Your task to perform on an android device: Open Android settings Image 0: 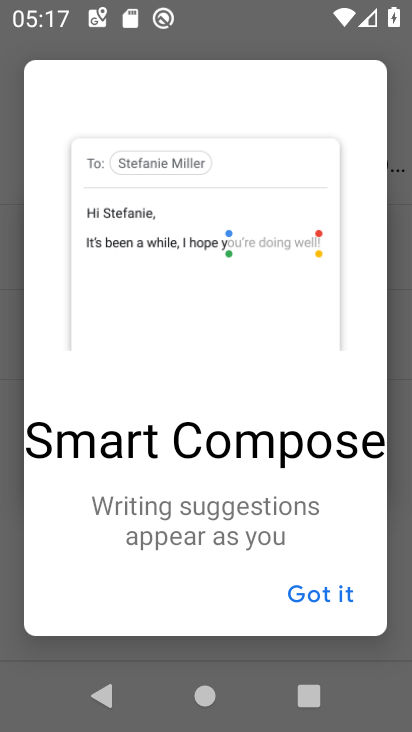
Step 0: press home button
Your task to perform on an android device: Open Android settings Image 1: 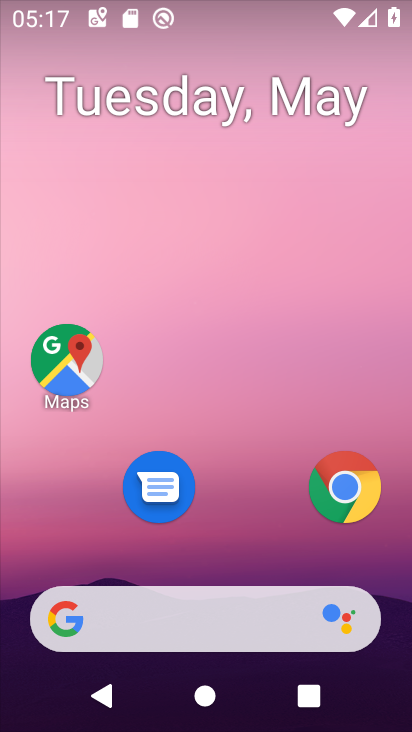
Step 1: drag from (254, 566) to (214, 127)
Your task to perform on an android device: Open Android settings Image 2: 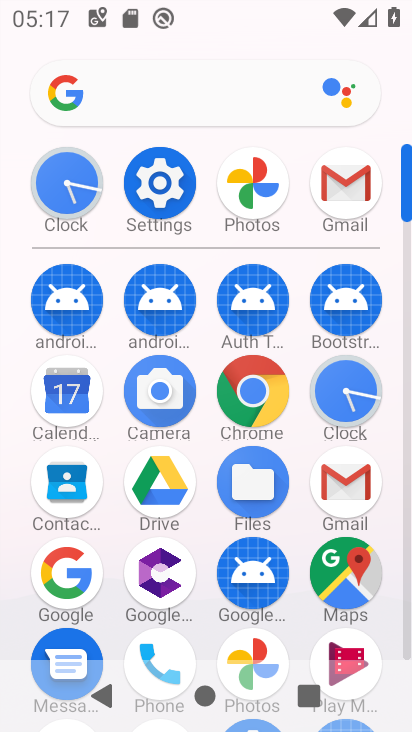
Step 2: click (159, 214)
Your task to perform on an android device: Open Android settings Image 3: 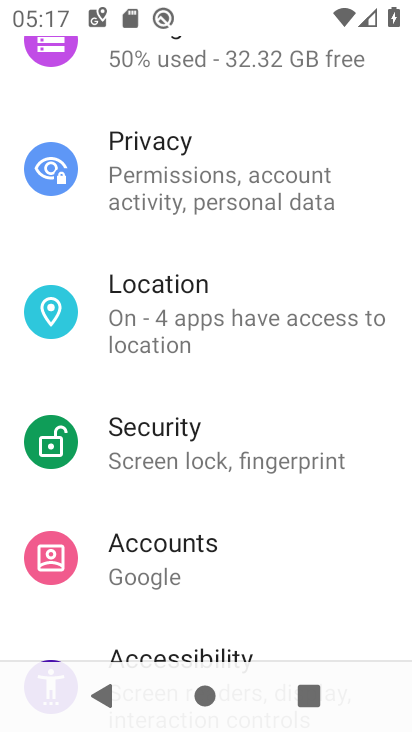
Step 3: task complete